Your task to perform on an android device: Check the news Image 0: 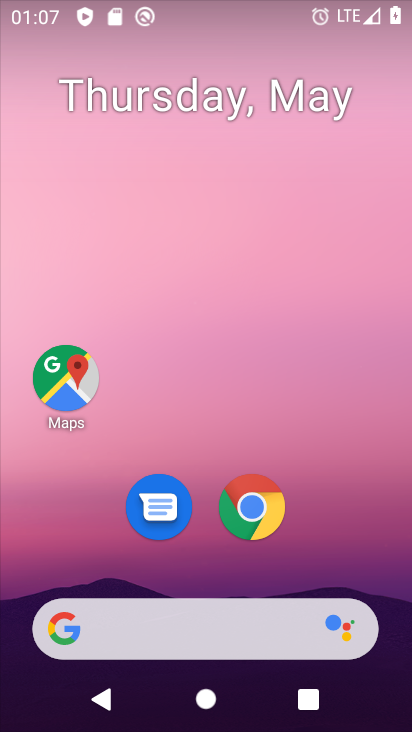
Step 0: drag from (224, 585) to (214, 253)
Your task to perform on an android device: Check the news Image 1: 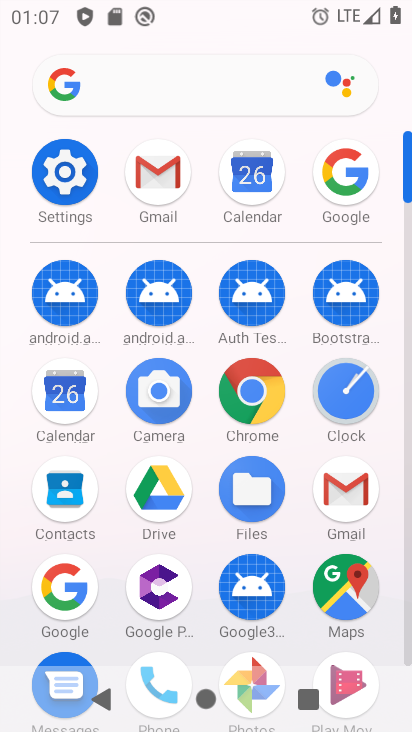
Step 1: click (342, 190)
Your task to perform on an android device: Check the news Image 2: 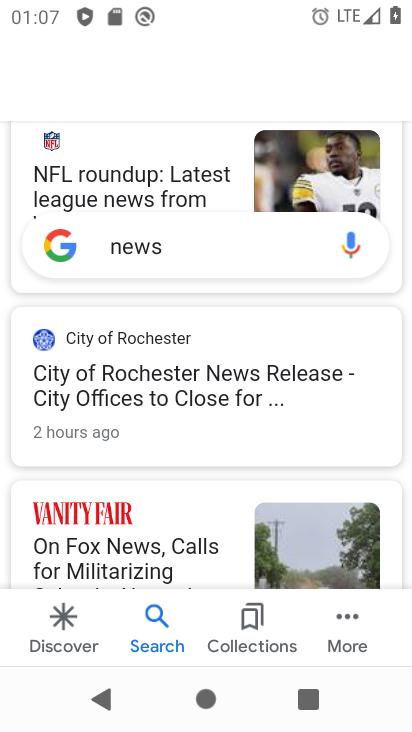
Step 2: drag from (168, 234) to (161, 498)
Your task to perform on an android device: Check the news Image 3: 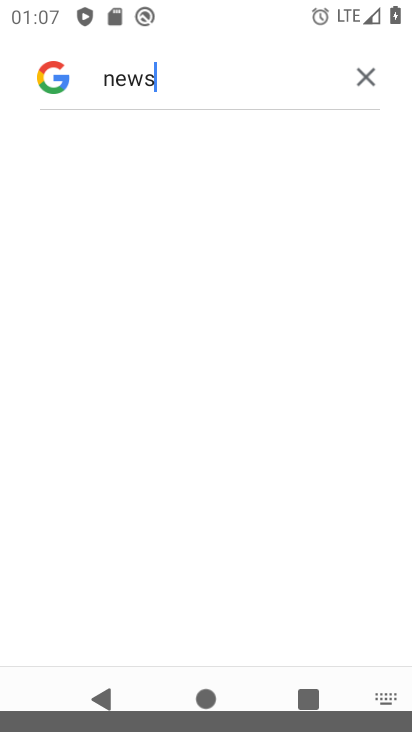
Step 3: drag from (172, 274) to (176, 488)
Your task to perform on an android device: Check the news Image 4: 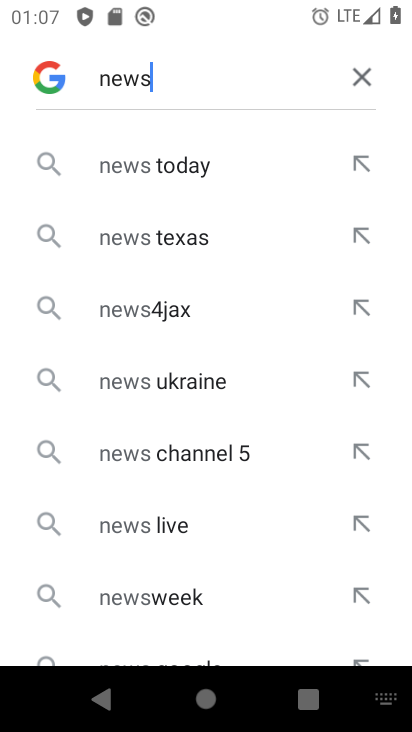
Step 4: click (361, 67)
Your task to perform on an android device: Check the news Image 5: 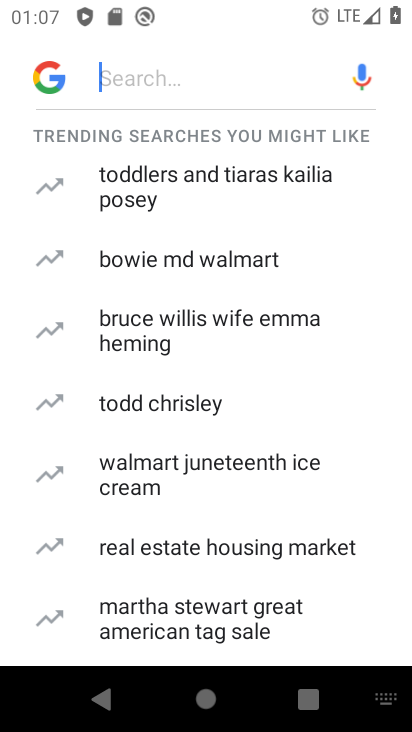
Step 5: click (174, 80)
Your task to perform on an android device: Check the news Image 6: 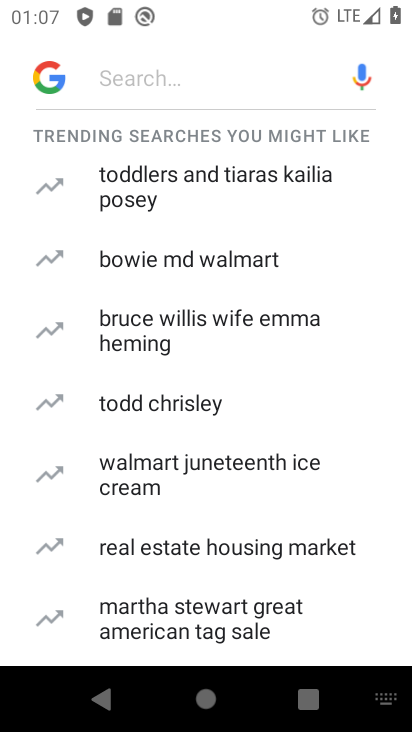
Step 6: type "news"
Your task to perform on an android device: Check the news Image 7: 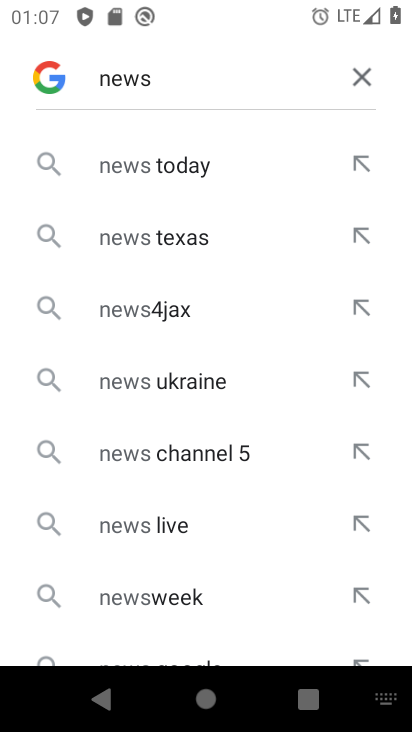
Step 7: click (210, 163)
Your task to perform on an android device: Check the news Image 8: 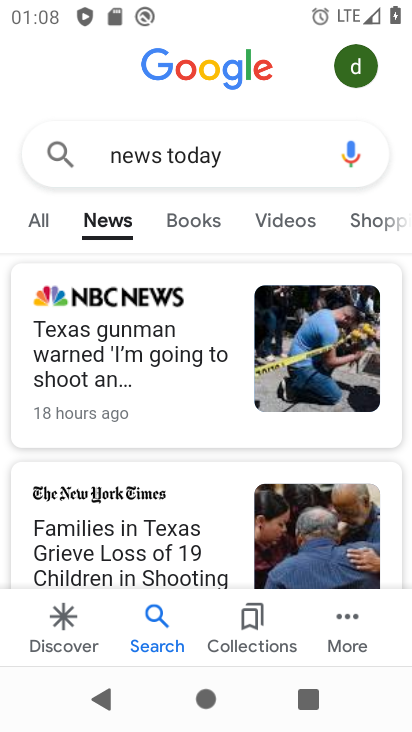
Step 8: click (29, 214)
Your task to perform on an android device: Check the news Image 9: 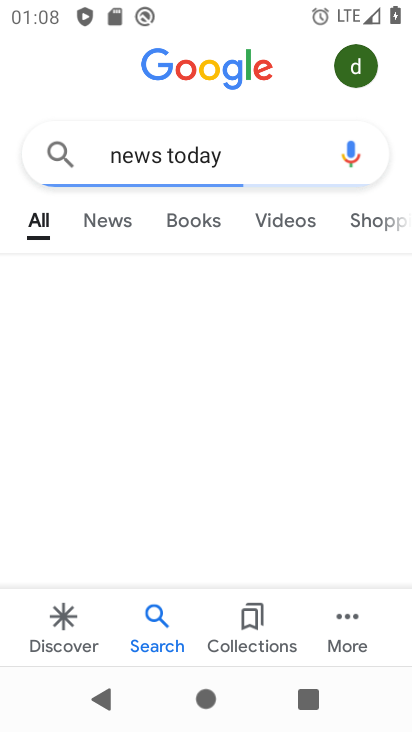
Step 9: click (105, 222)
Your task to perform on an android device: Check the news Image 10: 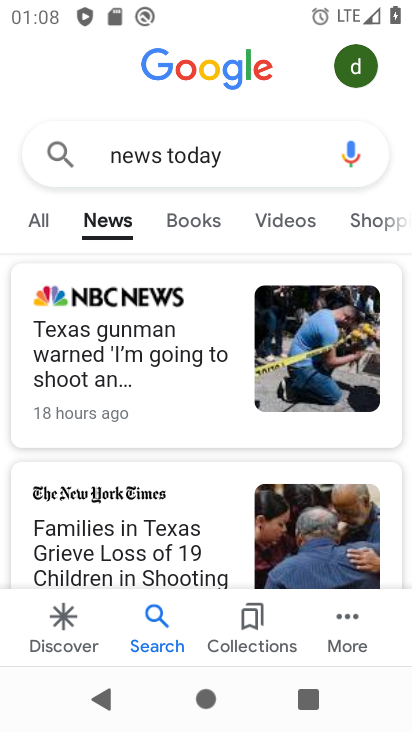
Step 10: task complete